Your task to perform on an android device: open app "Cash App" (install if not already installed) and enter user name: "submodules@gmail.com" and password: "heavenly" Image 0: 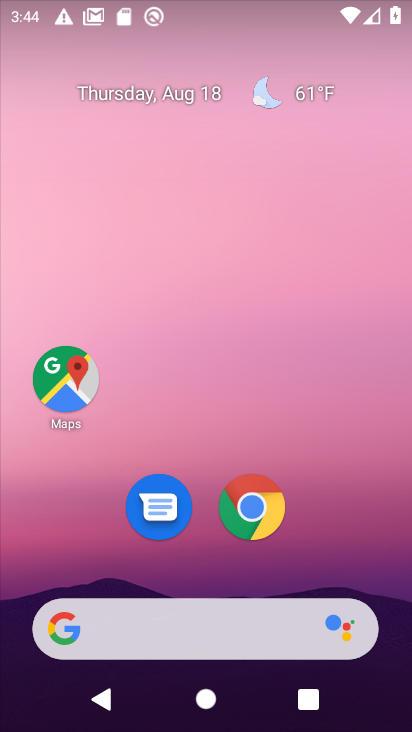
Step 0: drag from (241, 543) to (181, 0)
Your task to perform on an android device: open app "Cash App" (install if not already installed) and enter user name: "submodules@gmail.com" and password: "heavenly" Image 1: 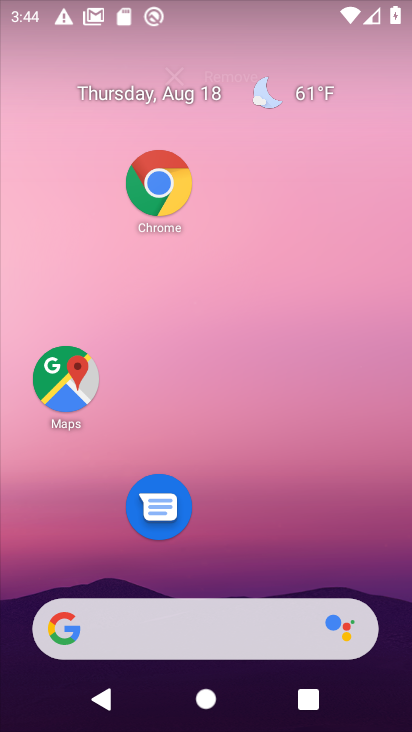
Step 1: click (68, 519)
Your task to perform on an android device: open app "Cash App" (install if not already installed) and enter user name: "submodules@gmail.com" and password: "heavenly" Image 2: 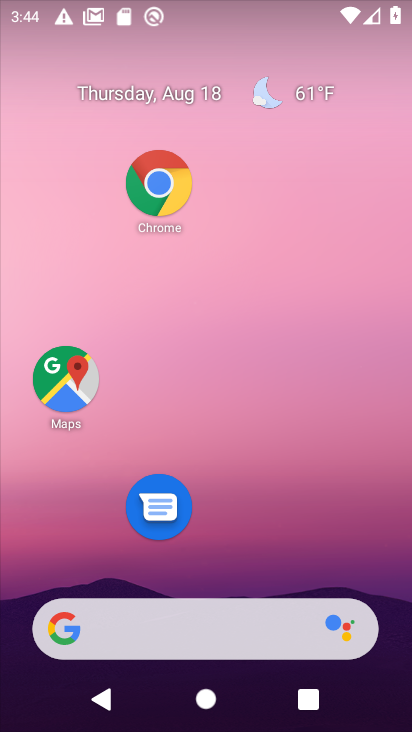
Step 2: drag from (267, 545) to (263, 50)
Your task to perform on an android device: open app "Cash App" (install if not already installed) and enter user name: "submodules@gmail.com" and password: "heavenly" Image 3: 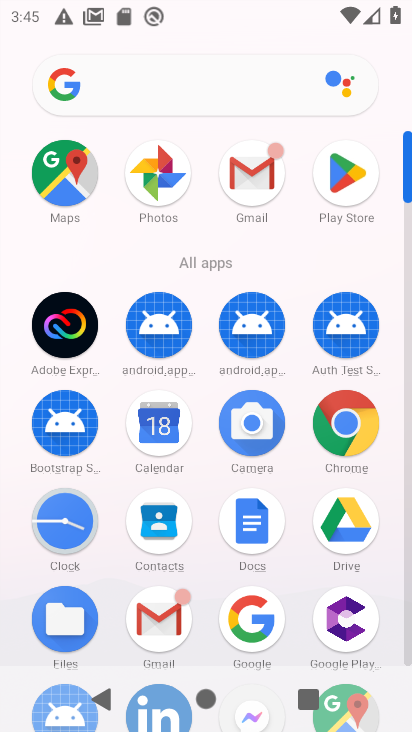
Step 3: click (340, 166)
Your task to perform on an android device: open app "Cash App" (install if not already installed) and enter user name: "submodules@gmail.com" and password: "heavenly" Image 4: 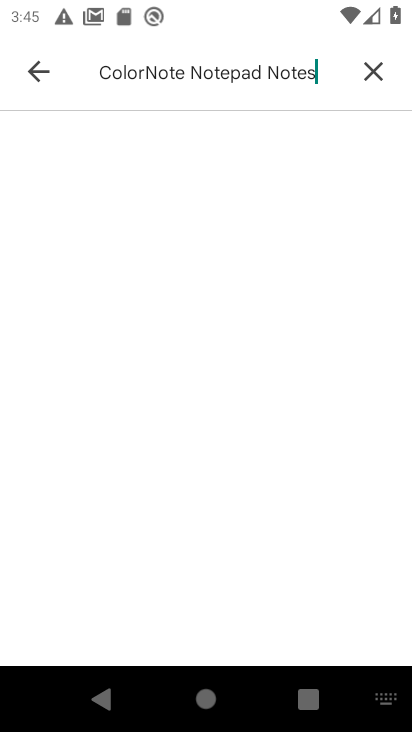
Step 4: click (373, 81)
Your task to perform on an android device: open app "Cash App" (install if not already installed) and enter user name: "submodules@gmail.com" and password: "heavenly" Image 5: 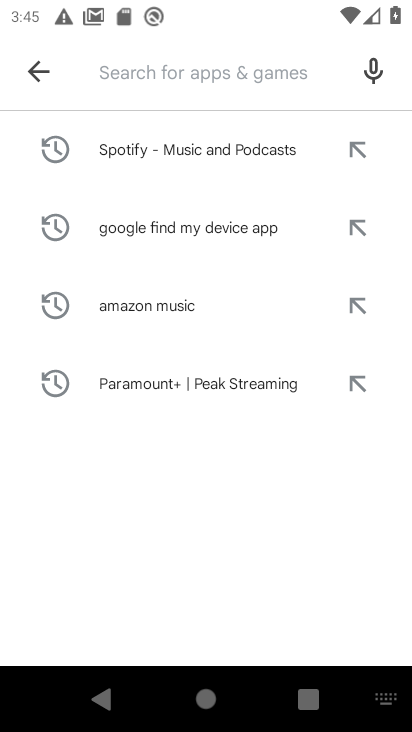
Step 5: click (173, 73)
Your task to perform on an android device: open app "Cash App" (install if not already installed) and enter user name: "submodules@gmail.com" and password: "heavenly" Image 6: 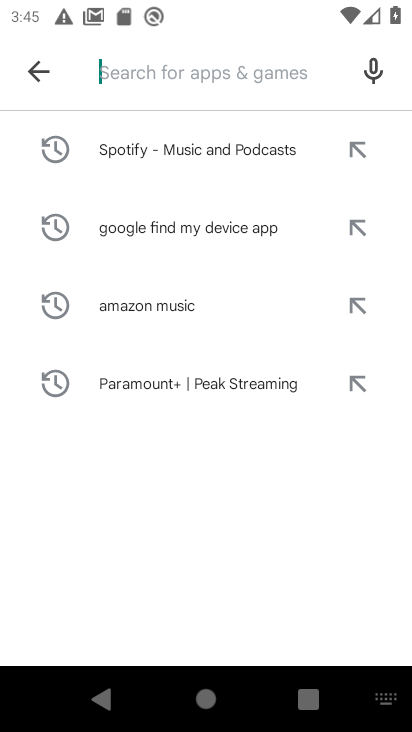
Step 6: click (156, 74)
Your task to perform on an android device: open app "Cash App" (install if not already installed) and enter user name: "submodules@gmail.com" and password: "heavenly" Image 7: 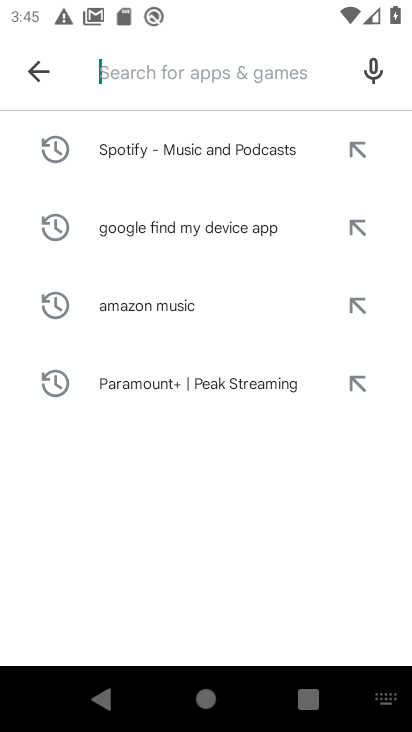
Step 7: type "Cash App"
Your task to perform on an android device: open app "Cash App" (install if not already installed) and enter user name: "submodules@gmail.com" and password: "heavenly" Image 8: 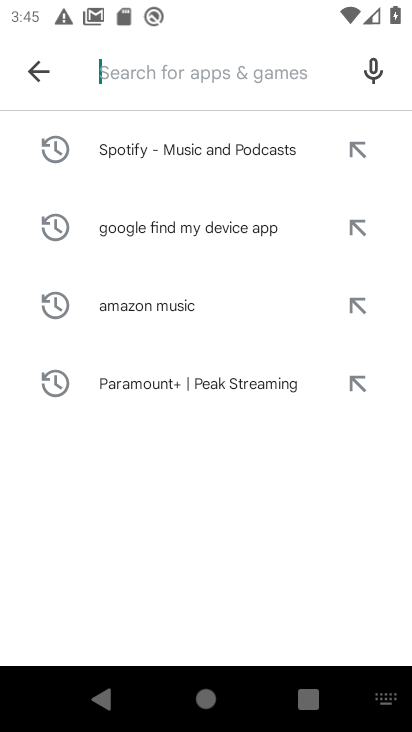
Step 8: click (216, 508)
Your task to perform on an android device: open app "Cash App" (install if not already installed) and enter user name: "submodules@gmail.com" and password: "heavenly" Image 9: 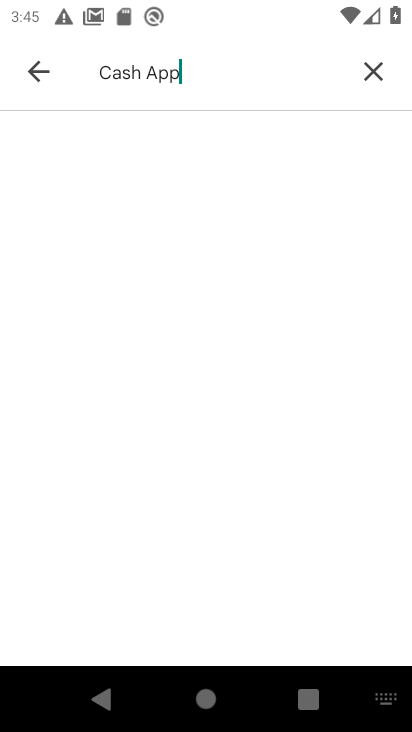
Step 9: click (368, 64)
Your task to perform on an android device: open app "Cash App" (install if not already installed) and enter user name: "submodules@gmail.com" and password: "heavenly" Image 10: 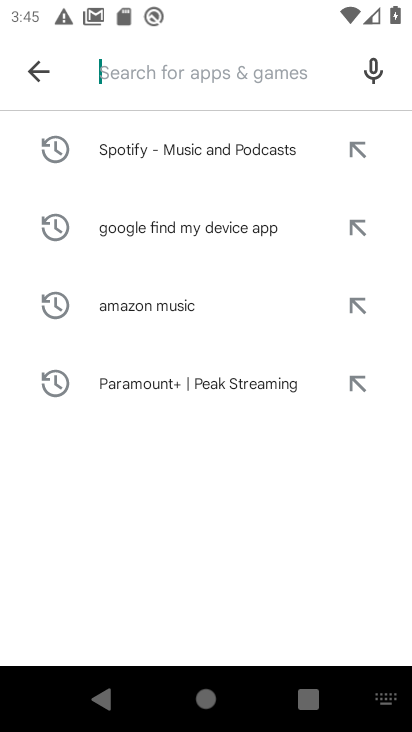
Step 10: type "cash"
Your task to perform on an android device: open app "Cash App" (install if not already installed) and enter user name: "submodules@gmail.com" and password: "heavenly" Image 11: 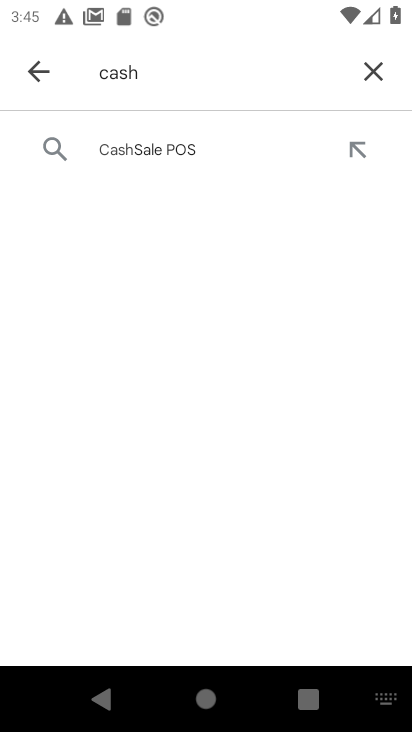
Step 11: task complete